Your task to perform on an android device: check storage Image 0: 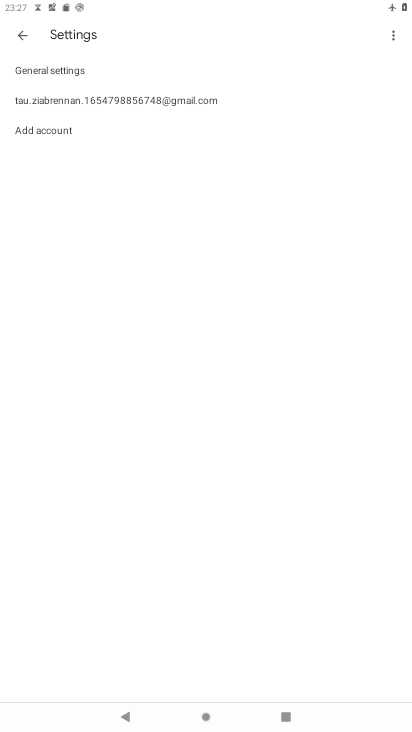
Step 0: press home button
Your task to perform on an android device: check storage Image 1: 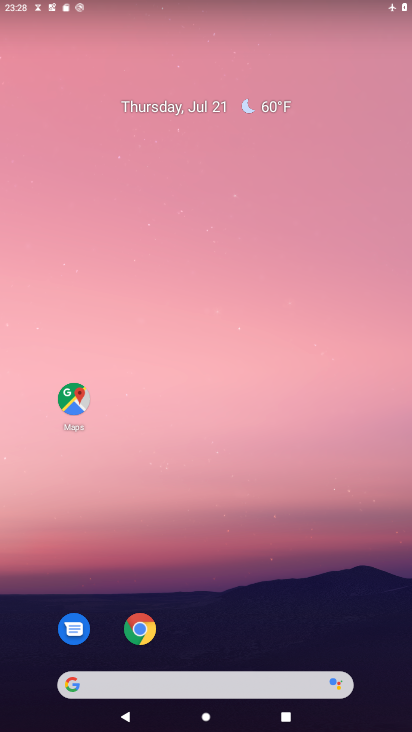
Step 1: drag from (205, 659) to (223, 130)
Your task to perform on an android device: check storage Image 2: 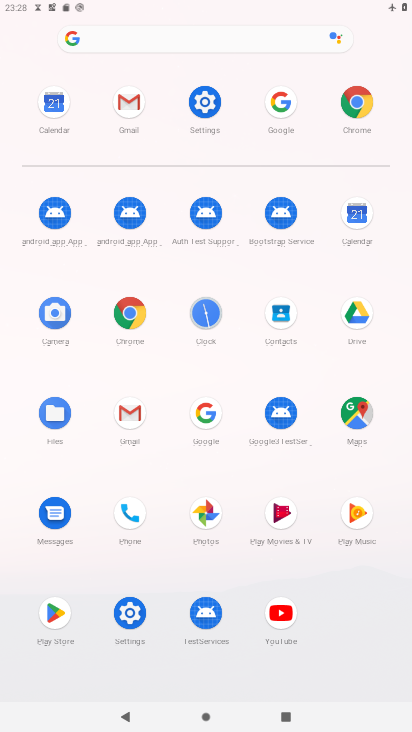
Step 2: click (198, 84)
Your task to perform on an android device: check storage Image 3: 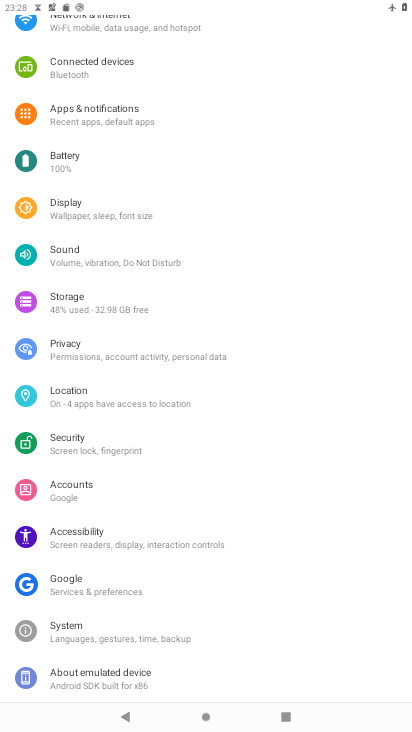
Step 3: click (117, 296)
Your task to perform on an android device: check storage Image 4: 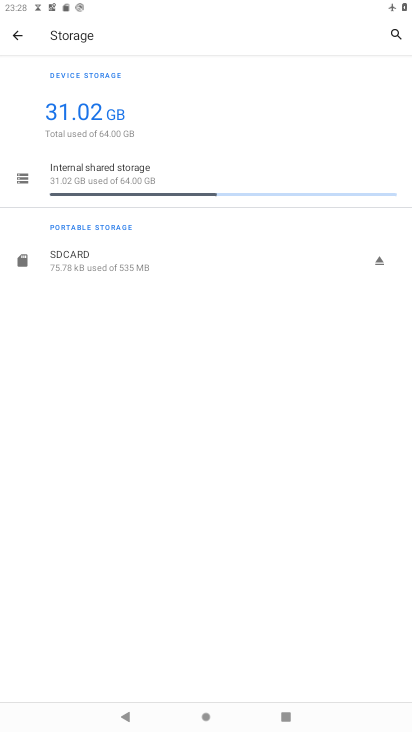
Step 4: task complete